Your task to perform on an android device: Open the calendar app, open the side menu, and click the "Day" option Image 0: 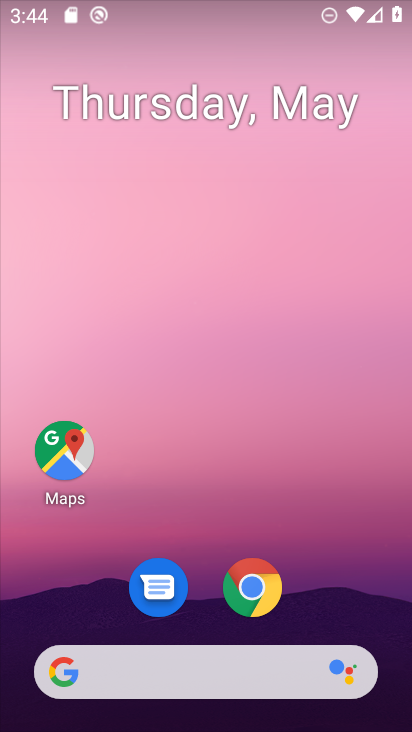
Step 0: drag from (368, 589) to (344, 213)
Your task to perform on an android device: Open the calendar app, open the side menu, and click the "Day" option Image 1: 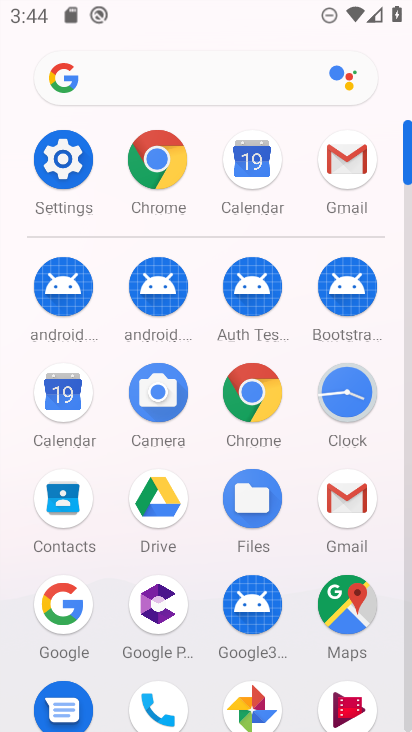
Step 1: click (85, 428)
Your task to perform on an android device: Open the calendar app, open the side menu, and click the "Day" option Image 2: 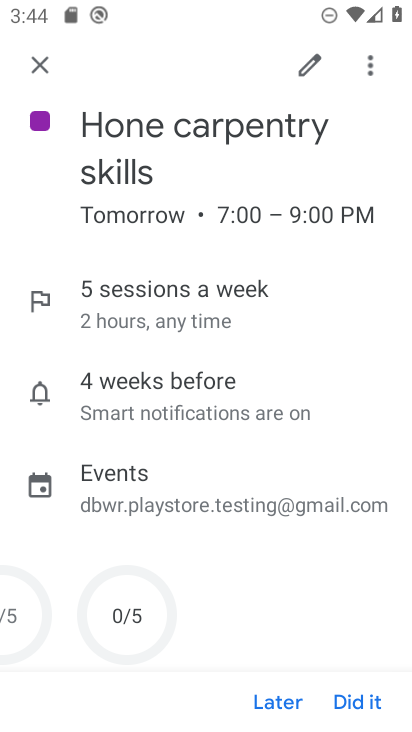
Step 2: click (28, 74)
Your task to perform on an android device: Open the calendar app, open the side menu, and click the "Day" option Image 3: 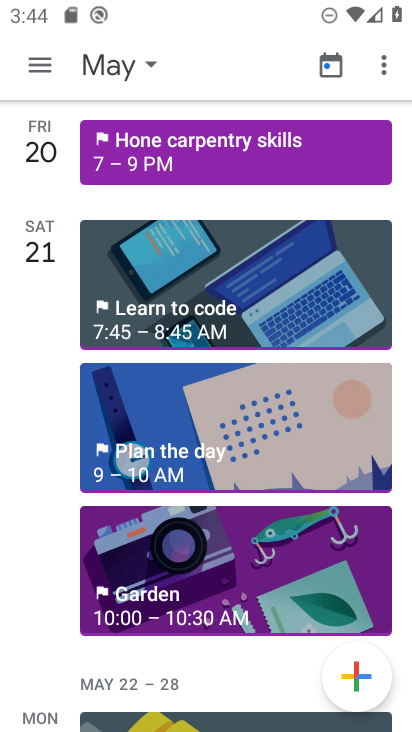
Step 3: click (45, 71)
Your task to perform on an android device: Open the calendar app, open the side menu, and click the "Day" option Image 4: 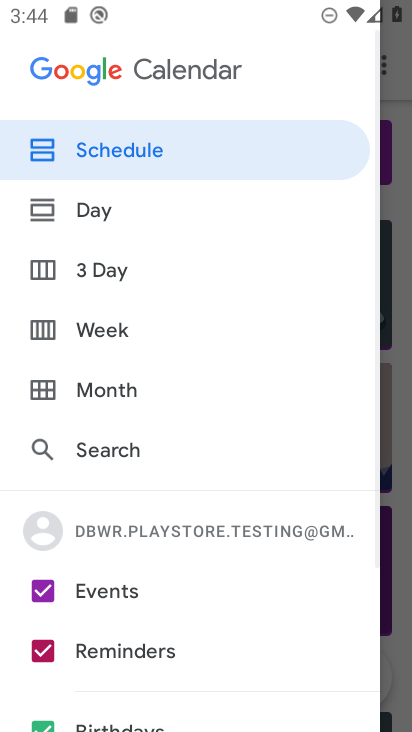
Step 4: drag from (234, 460) to (233, 297)
Your task to perform on an android device: Open the calendar app, open the side menu, and click the "Day" option Image 5: 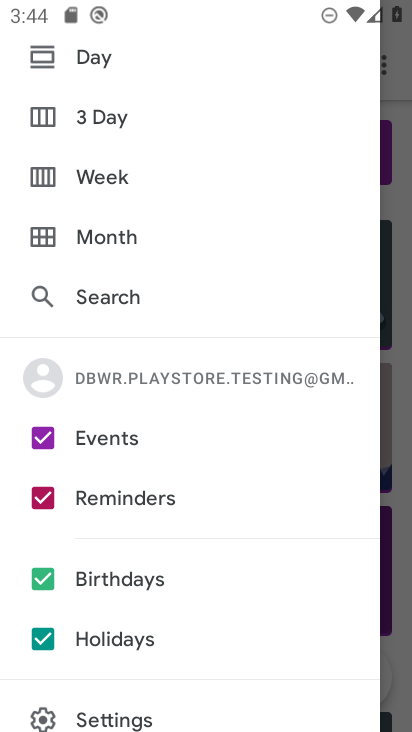
Step 5: drag from (256, 545) to (264, 332)
Your task to perform on an android device: Open the calendar app, open the side menu, and click the "Day" option Image 6: 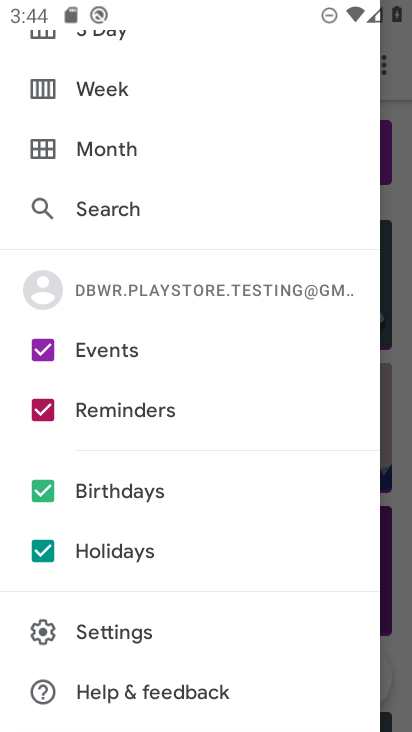
Step 6: drag from (280, 592) to (275, 376)
Your task to perform on an android device: Open the calendar app, open the side menu, and click the "Day" option Image 7: 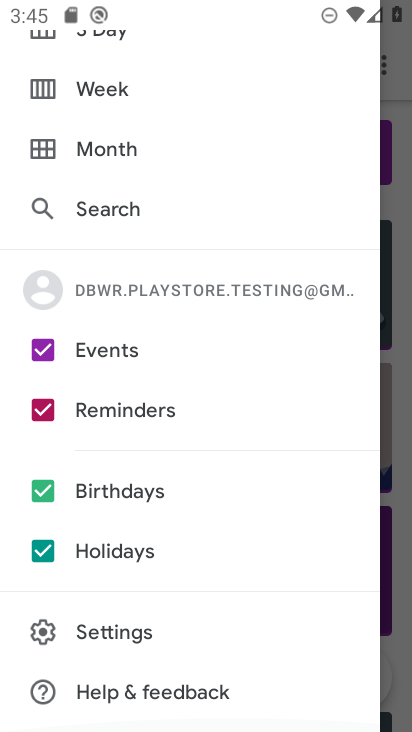
Step 7: drag from (279, 236) to (266, 399)
Your task to perform on an android device: Open the calendar app, open the side menu, and click the "Day" option Image 8: 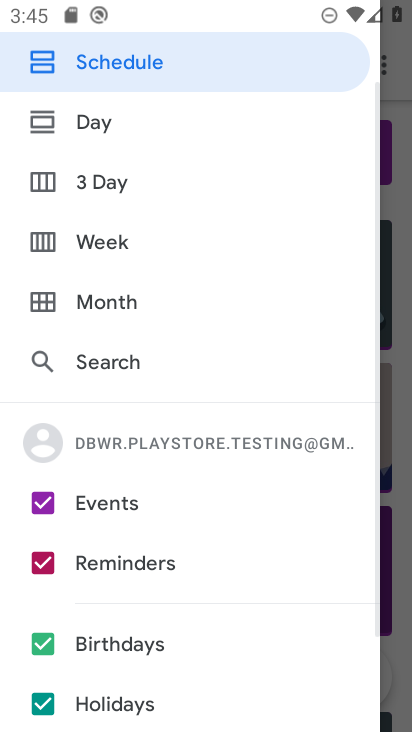
Step 8: drag from (262, 217) to (259, 408)
Your task to perform on an android device: Open the calendar app, open the side menu, and click the "Day" option Image 9: 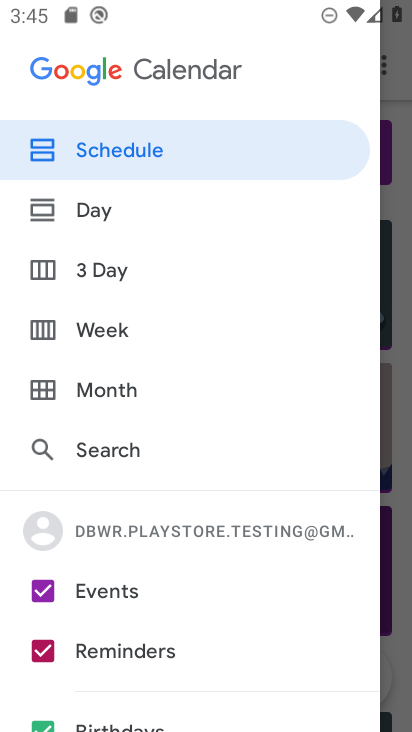
Step 9: click (145, 231)
Your task to perform on an android device: Open the calendar app, open the side menu, and click the "Day" option Image 10: 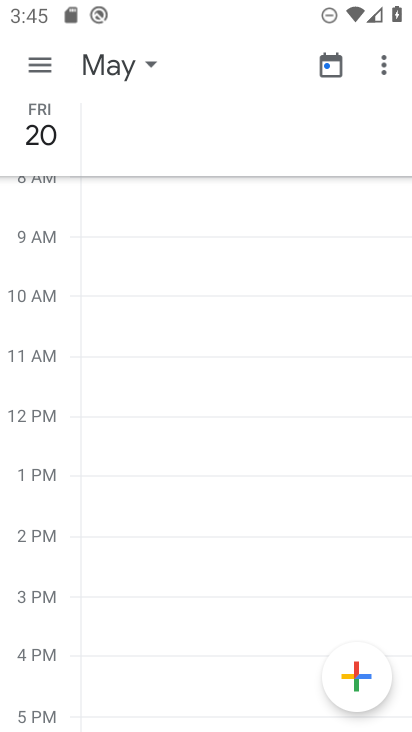
Step 10: task complete